Your task to perform on an android device: turn off location Image 0: 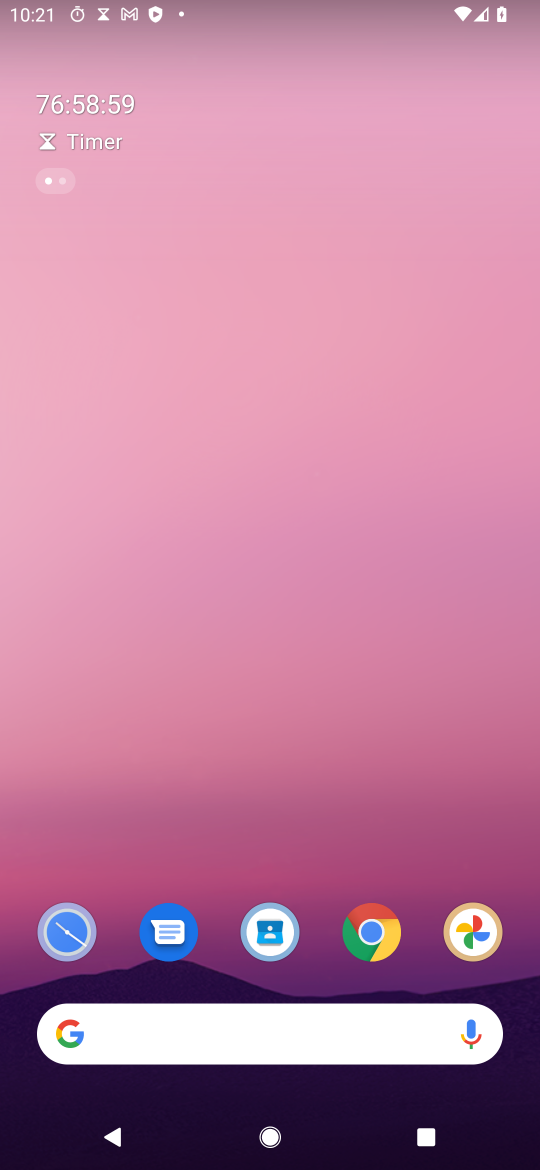
Step 0: drag from (346, 858) to (377, 29)
Your task to perform on an android device: turn off location Image 1: 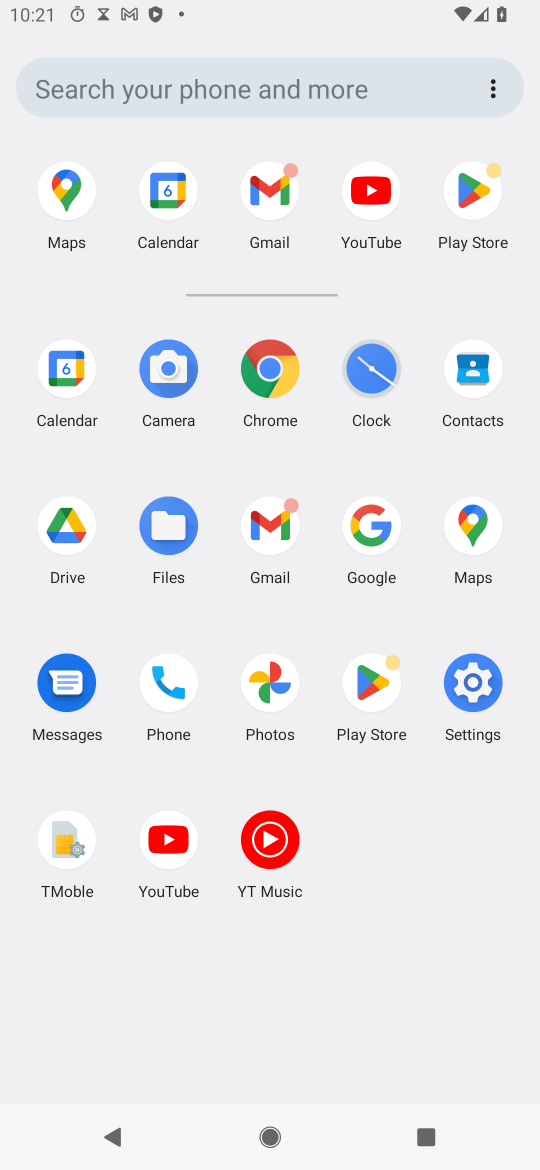
Step 1: click (480, 706)
Your task to perform on an android device: turn off location Image 2: 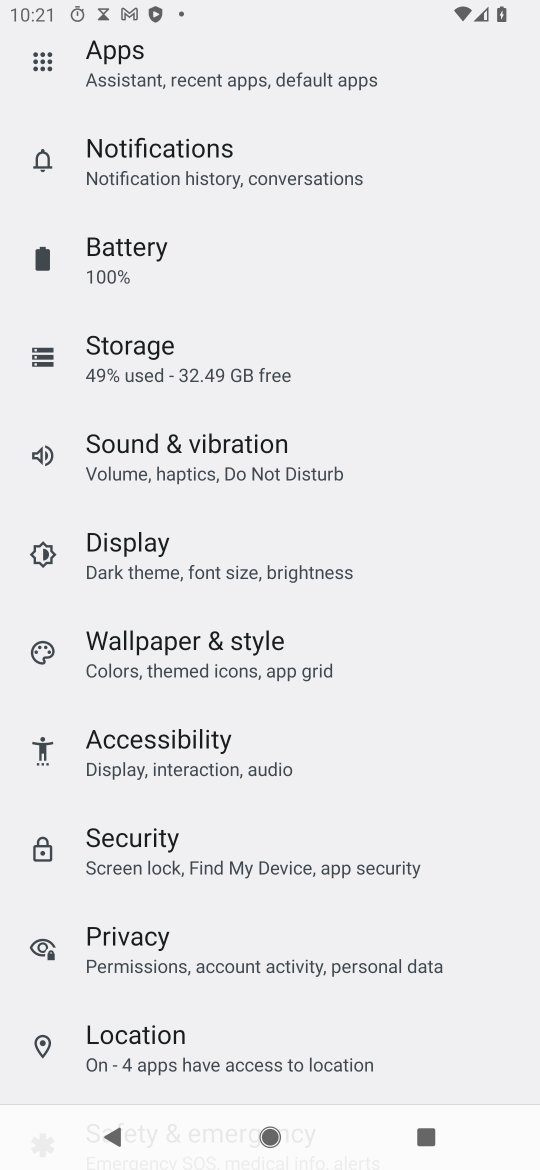
Step 2: click (201, 1049)
Your task to perform on an android device: turn off location Image 3: 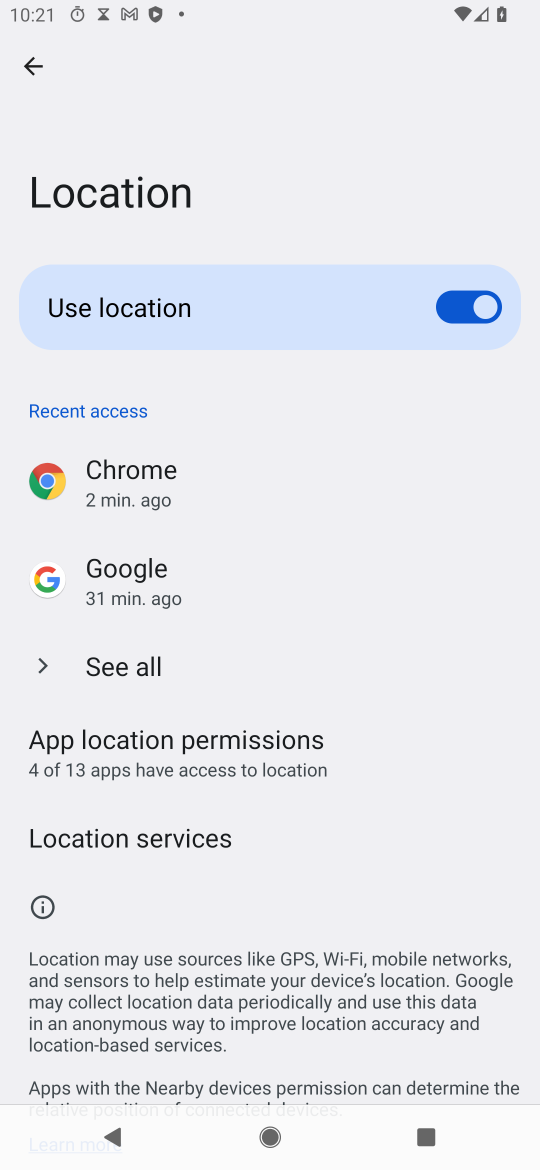
Step 3: click (468, 299)
Your task to perform on an android device: turn off location Image 4: 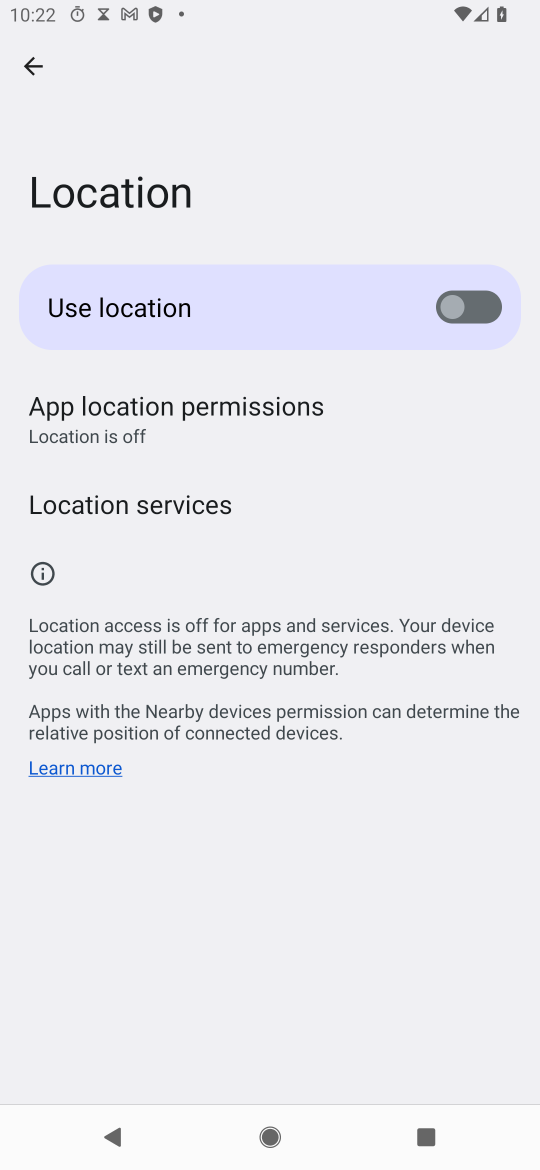
Step 4: task complete